Your task to perform on an android device: set default search engine in the chrome app Image 0: 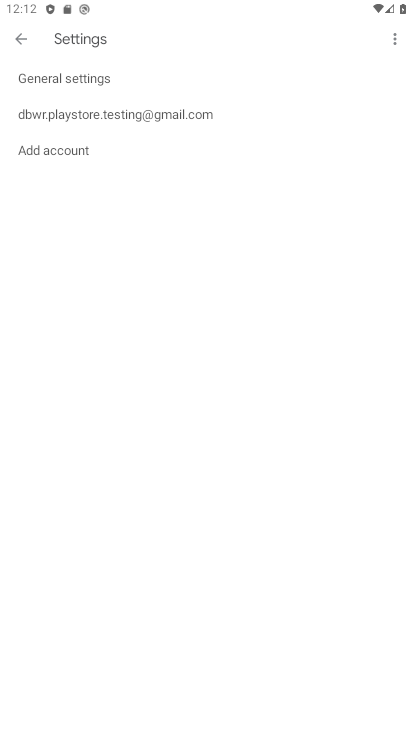
Step 0: press home button
Your task to perform on an android device: set default search engine in the chrome app Image 1: 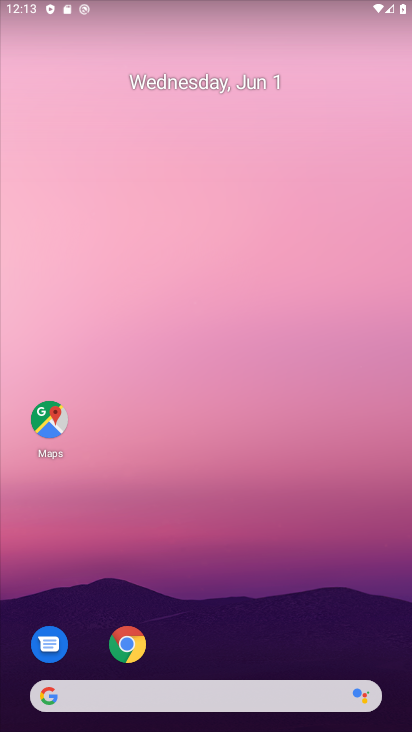
Step 1: click (115, 652)
Your task to perform on an android device: set default search engine in the chrome app Image 2: 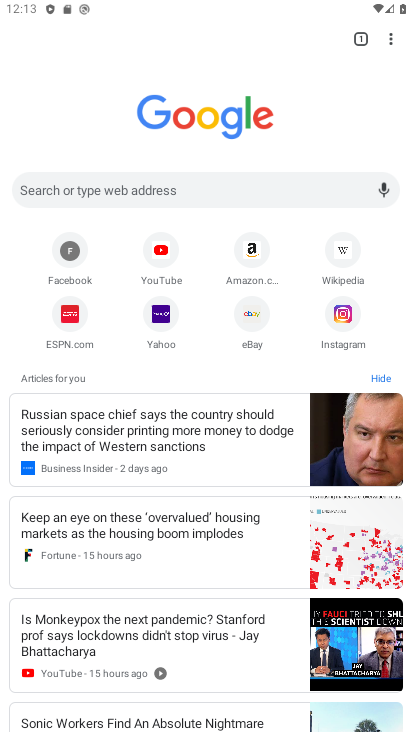
Step 2: drag from (392, 35) to (279, 316)
Your task to perform on an android device: set default search engine in the chrome app Image 3: 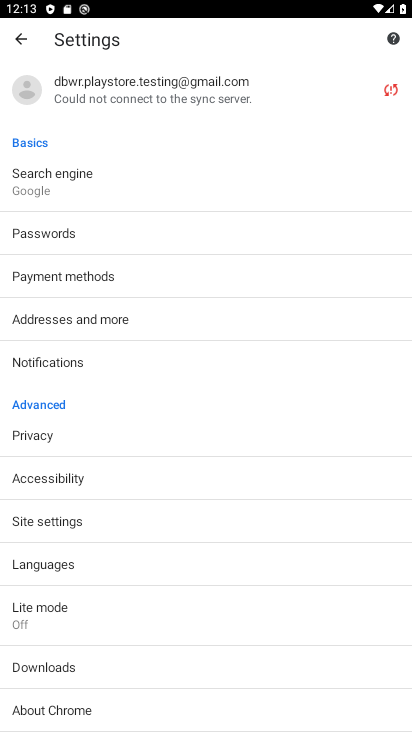
Step 3: click (62, 193)
Your task to perform on an android device: set default search engine in the chrome app Image 4: 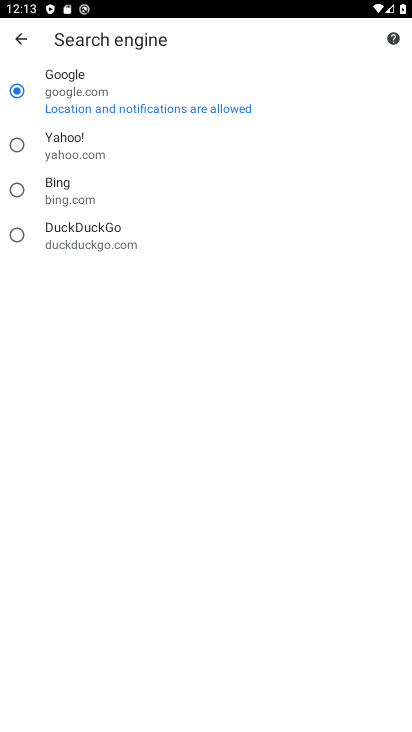
Step 4: task complete